Your task to perform on an android device: move an email to a new category in the gmail app Image 0: 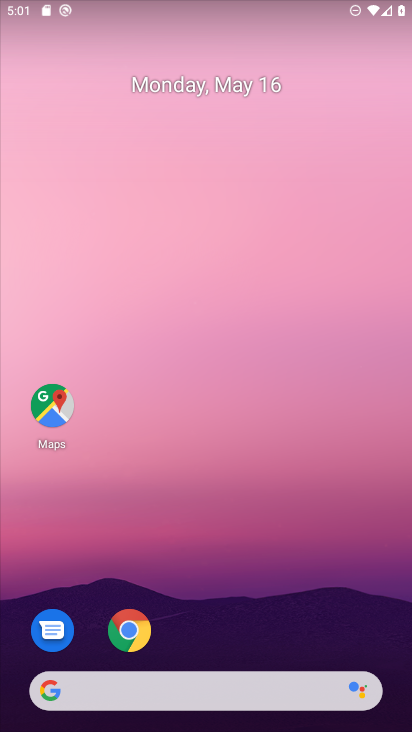
Step 0: drag from (302, 649) to (158, 731)
Your task to perform on an android device: move an email to a new category in the gmail app Image 1: 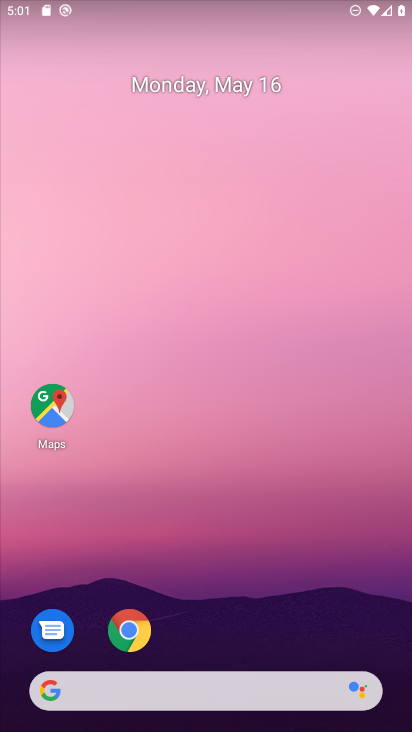
Step 1: drag from (288, 597) to (308, 8)
Your task to perform on an android device: move an email to a new category in the gmail app Image 2: 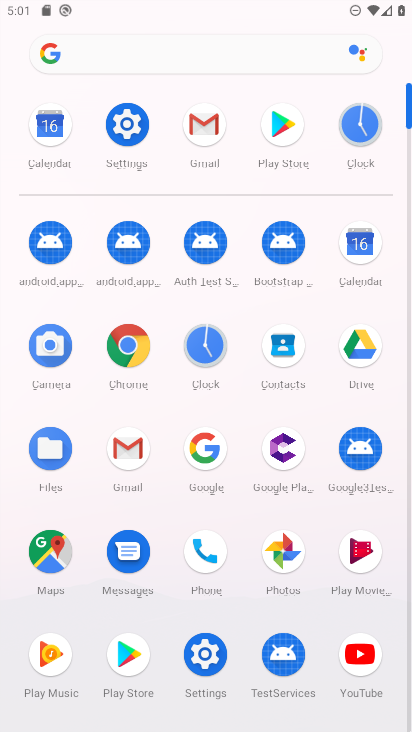
Step 2: click (200, 117)
Your task to perform on an android device: move an email to a new category in the gmail app Image 3: 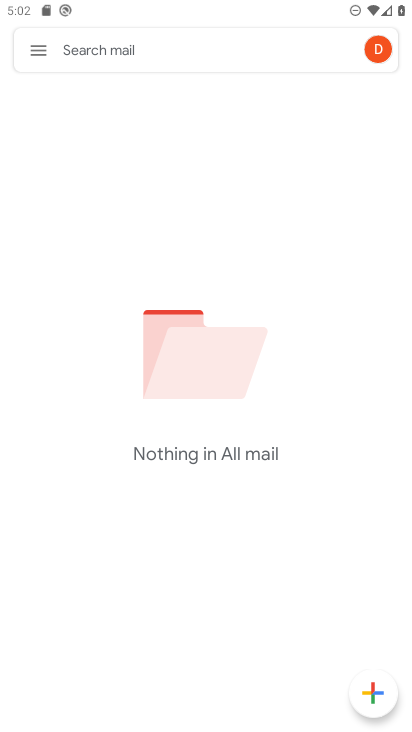
Step 3: click (35, 35)
Your task to perform on an android device: move an email to a new category in the gmail app Image 4: 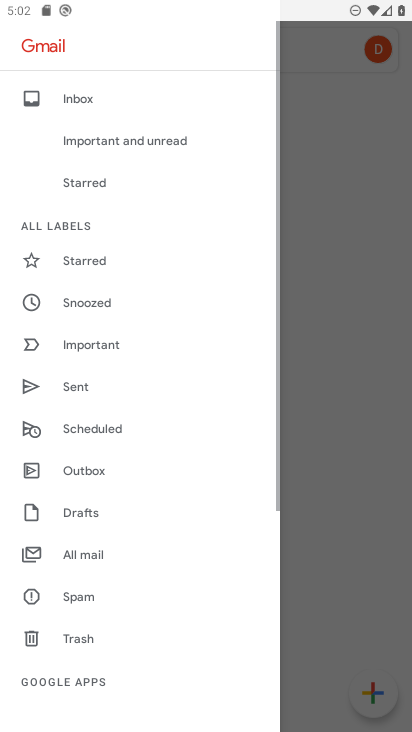
Step 4: task complete